Your task to perform on an android device: change timer sound Image 0: 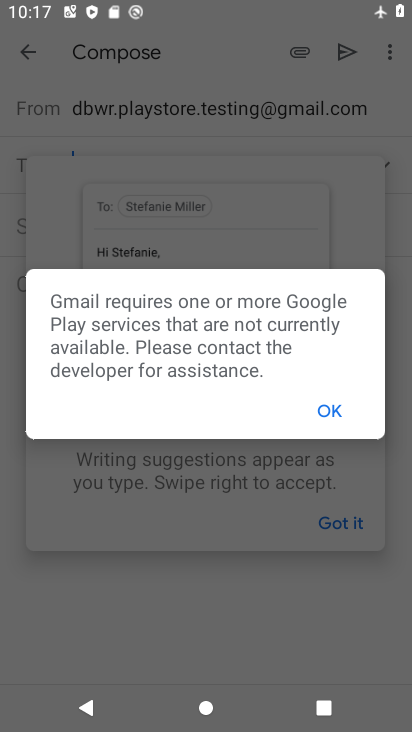
Step 0: click (315, 404)
Your task to perform on an android device: change timer sound Image 1: 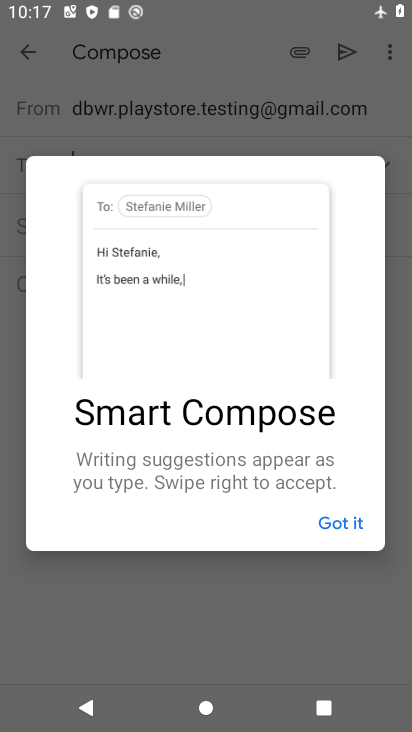
Step 1: press home button
Your task to perform on an android device: change timer sound Image 2: 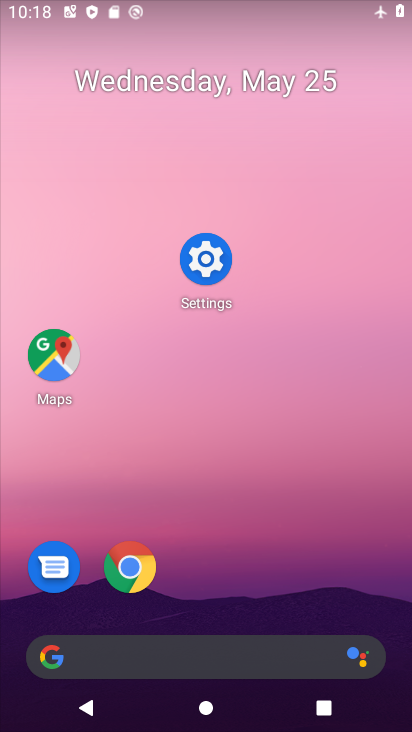
Step 2: drag from (280, 581) to (294, 211)
Your task to perform on an android device: change timer sound Image 3: 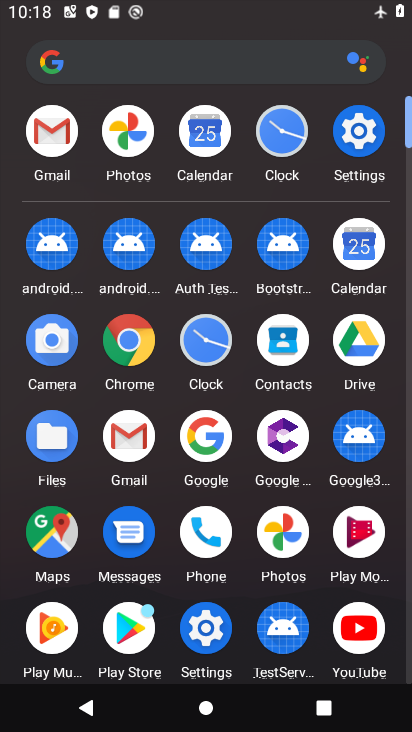
Step 3: click (305, 141)
Your task to perform on an android device: change timer sound Image 4: 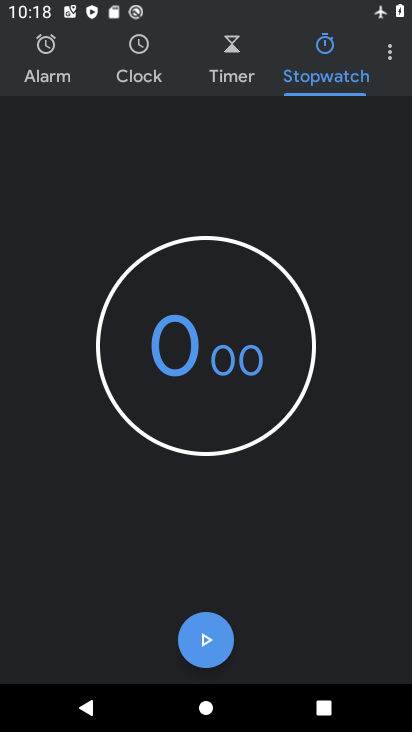
Step 4: click (247, 56)
Your task to perform on an android device: change timer sound Image 5: 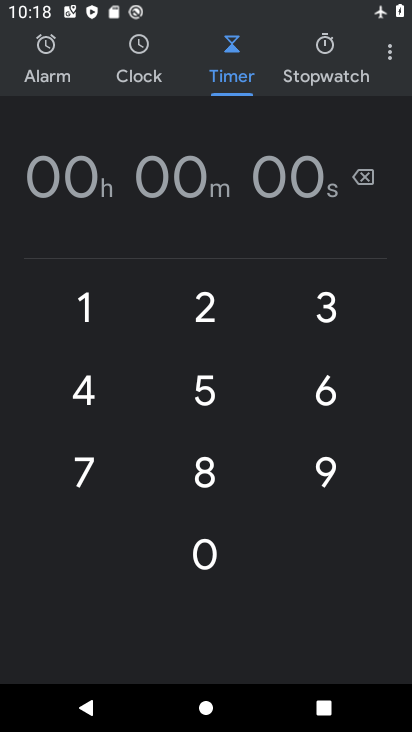
Step 5: click (387, 43)
Your task to perform on an android device: change timer sound Image 6: 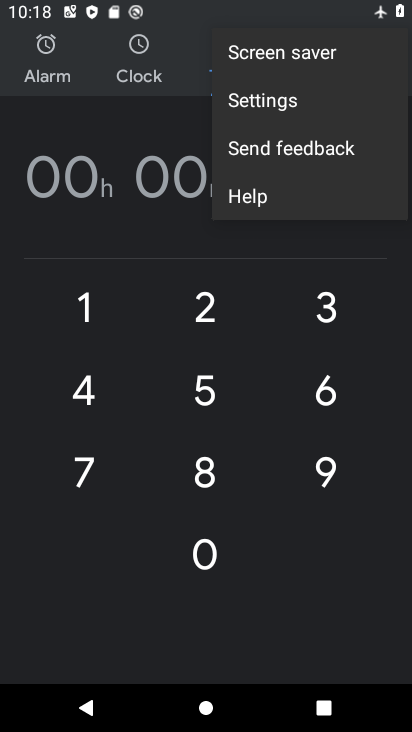
Step 6: click (334, 102)
Your task to perform on an android device: change timer sound Image 7: 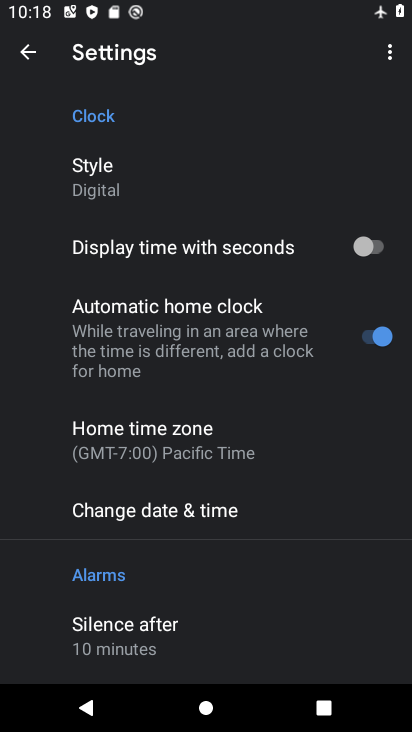
Step 7: drag from (218, 558) to (299, 295)
Your task to perform on an android device: change timer sound Image 8: 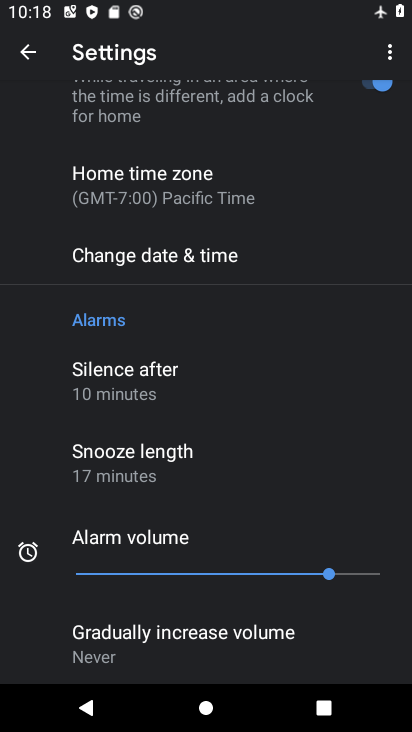
Step 8: drag from (261, 529) to (289, 115)
Your task to perform on an android device: change timer sound Image 9: 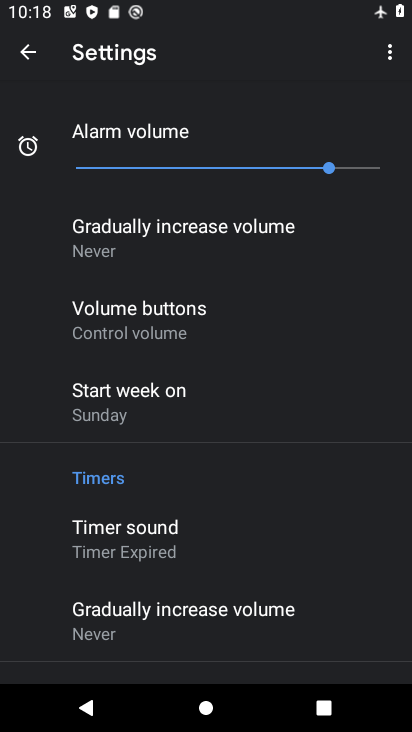
Step 9: click (206, 525)
Your task to perform on an android device: change timer sound Image 10: 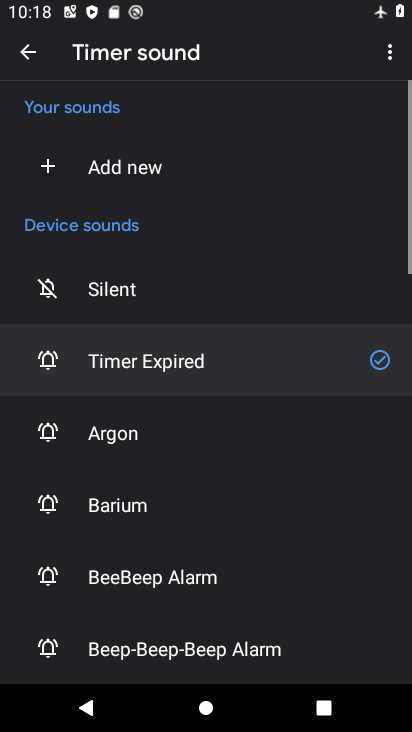
Step 10: click (161, 587)
Your task to perform on an android device: change timer sound Image 11: 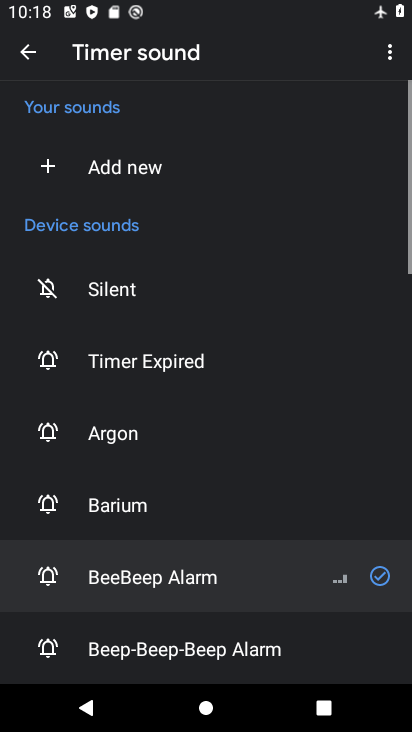
Step 11: task complete